Your task to perform on an android device: set an alarm Image 0: 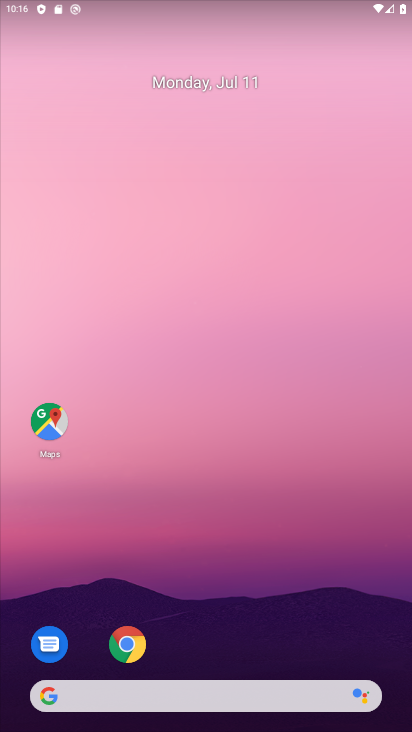
Step 0: press home button
Your task to perform on an android device: set an alarm Image 1: 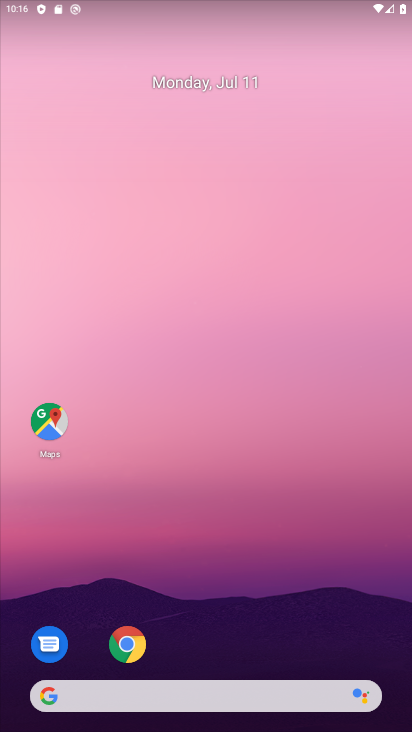
Step 1: drag from (264, 527) to (275, 106)
Your task to perform on an android device: set an alarm Image 2: 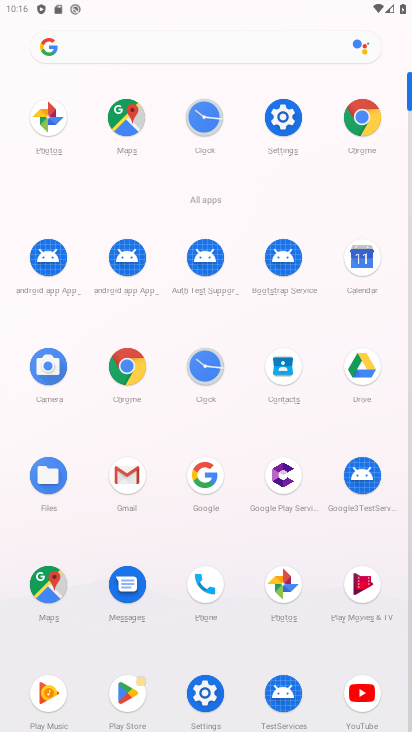
Step 2: click (196, 373)
Your task to perform on an android device: set an alarm Image 3: 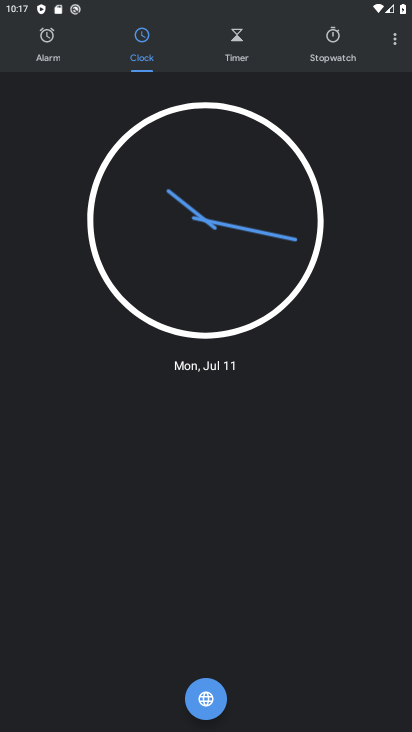
Step 3: click (57, 60)
Your task to perform on an android device: set an alarm Image 4: 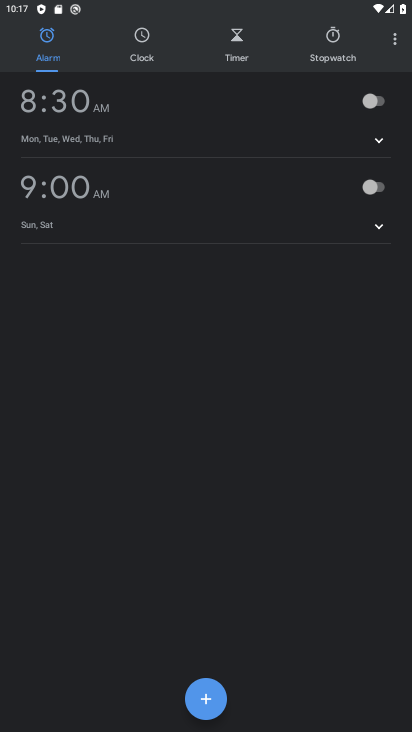
Step 4: click (206, 701)
Your task to perform on an android device: set an alarm Image 5: 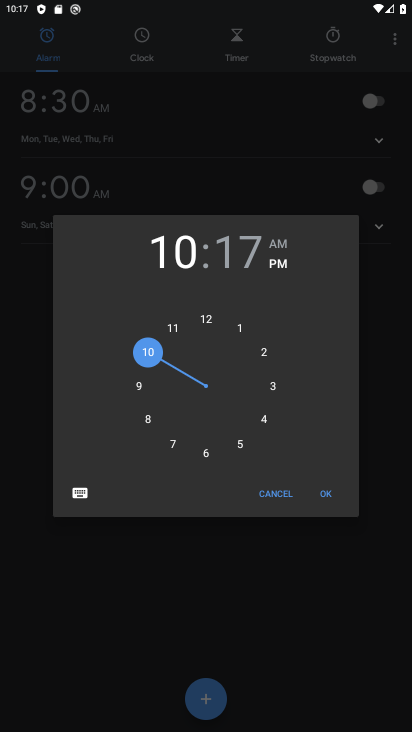
Step 5: click (202, 452)
Your task to perform on an android device: set an alarm Image 6: 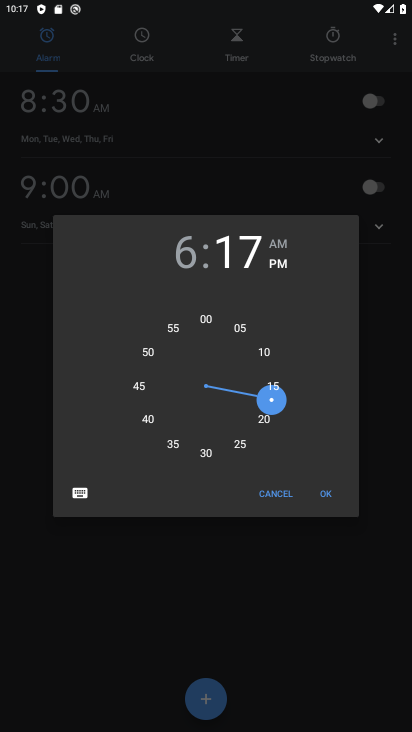
Step 6: click (161, 357)
Your task to perform on an android device: set an alarm Image 7: 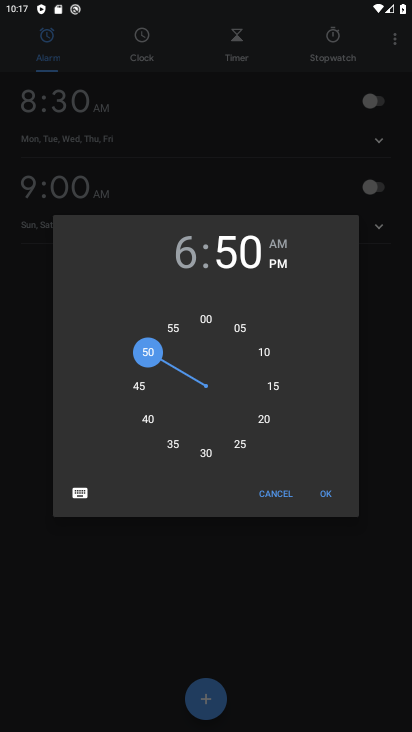
Step 7: click (326, 493)
Your task to perform on an android device: set an alarm Image 8: 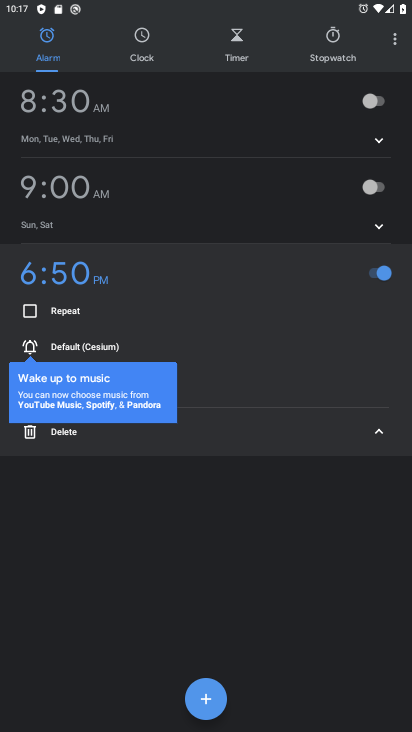
Step 8: task complete